Your task to perform on an android device: Go to Reddit.com Image 0: 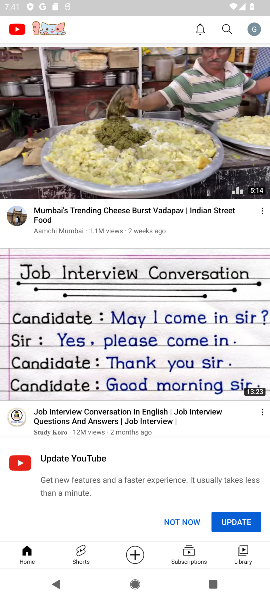
Step 0: press home button
Your task to perform on an android device: Go to Reddit.com Image 1: 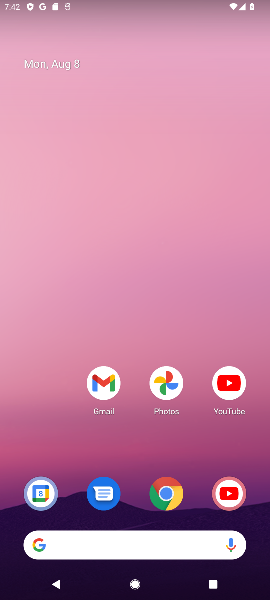
Step 1: click (167, 497)
Your task to perform on an android device: Go to Reddit.com Image 2: 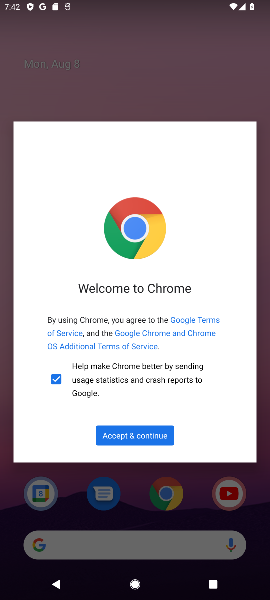
Step 2: click (113, 440)
Your task to perform on an android device: Go to Reddit.com Image 3: 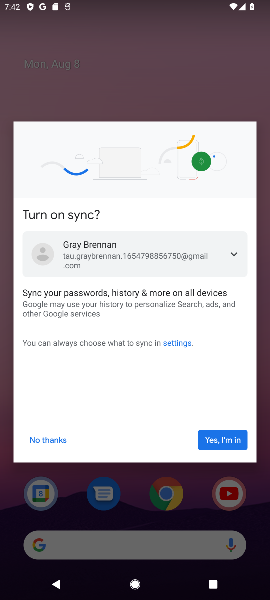
Step 3: click (212, 440)
Your task to perform on an android device: Go to Reddit.com Image 4: 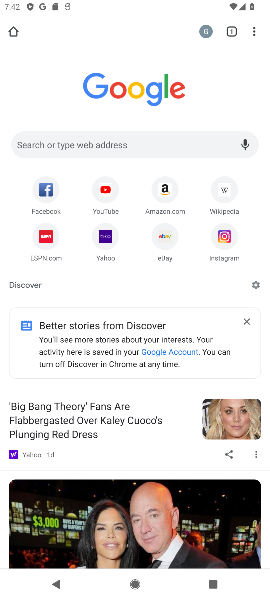
Step 4: click (98, 140)
Your task to perform on an android device: Go to Reddit.com Image 5: 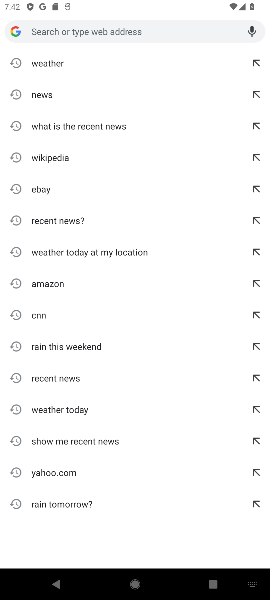
Step 5: type "reddit.com"
Your task to perform on an android device: Go to Reddit.com Image 6: 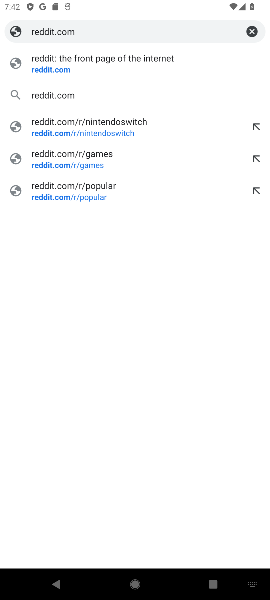
Step 6: click (62, 67)
Your task to perform on an android device: Go to Reddit.com Image 7: 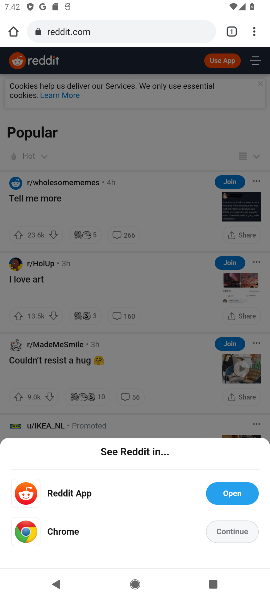
Step 7: task complete